Your task to perform on an android device: When is my next appointment? Image 0: 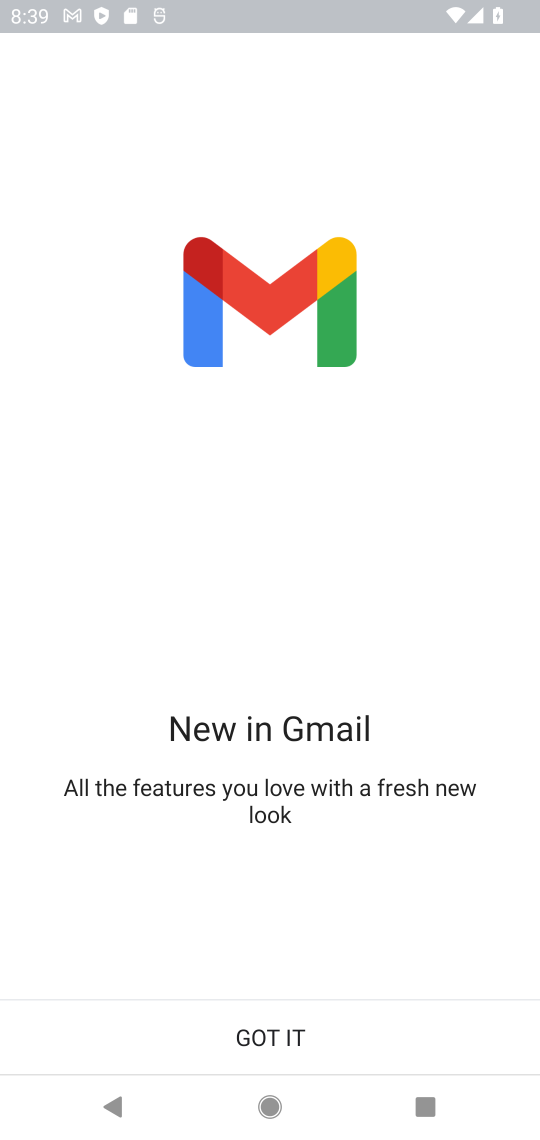
Step 0: press home button
Your task to perform on an android device: When is my next appointment? Image 1: 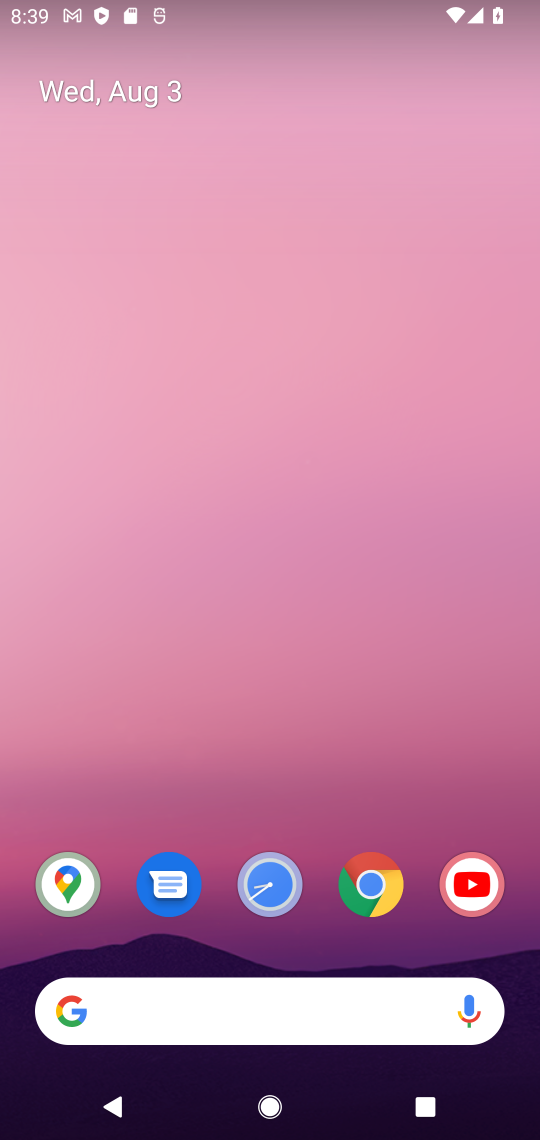
Step 1: drag from (158, 939) to (437, 127)
Your task to perform on an android device: When is my next appointment? Image 2: 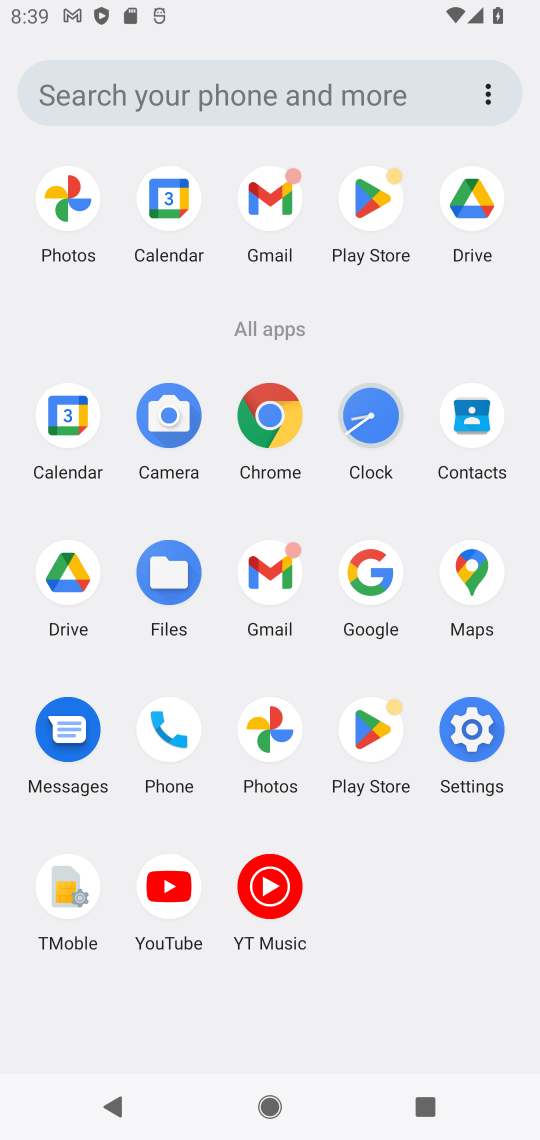
Step 2: click (60, 411)
Your task to perform on an android device: When is my next appointment? Image 3: 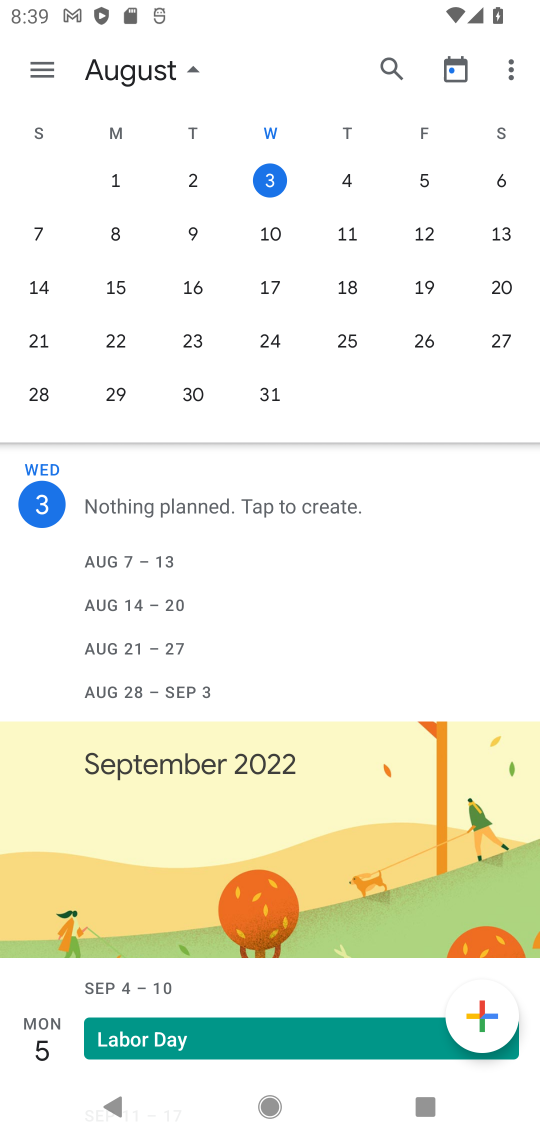
Step 3: task complete